Your task to perform on an android device: When is my next meeting? Image 0: 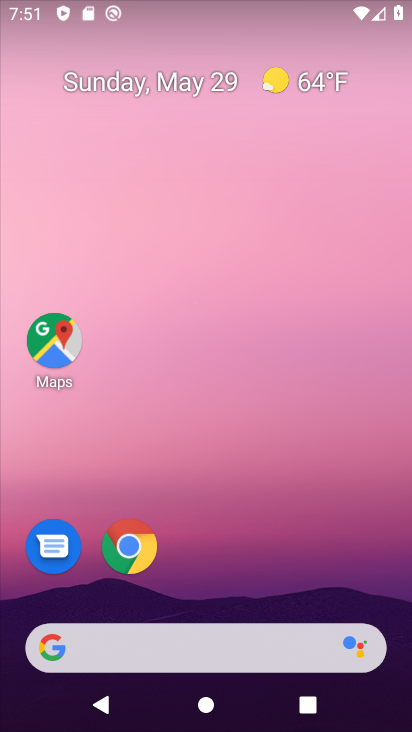
Step 0: drag from (337, 590) to (217, 107)
Your task to perform on an android device: When is my next meeting? Image 1: 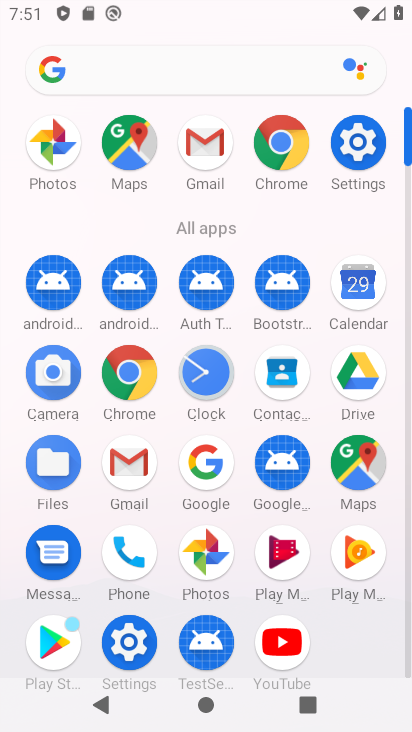
Step 1: click (370, 271)
Your task to perform on an android device: When is my next meeting? Image 2: 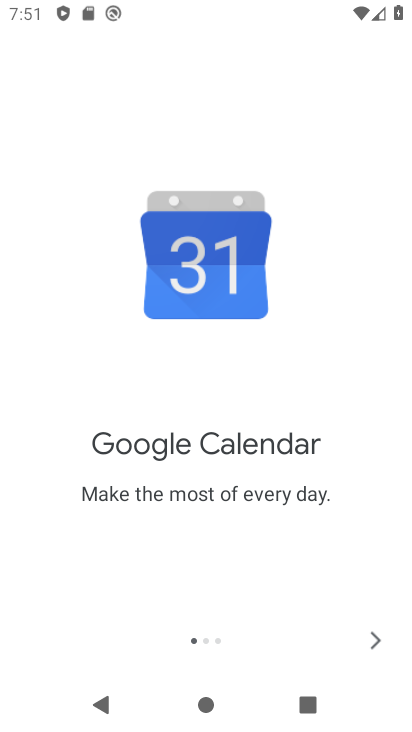
Step 2: click (373, 642)
Your task to perform on an android device: When is my next meeting? Image 3: 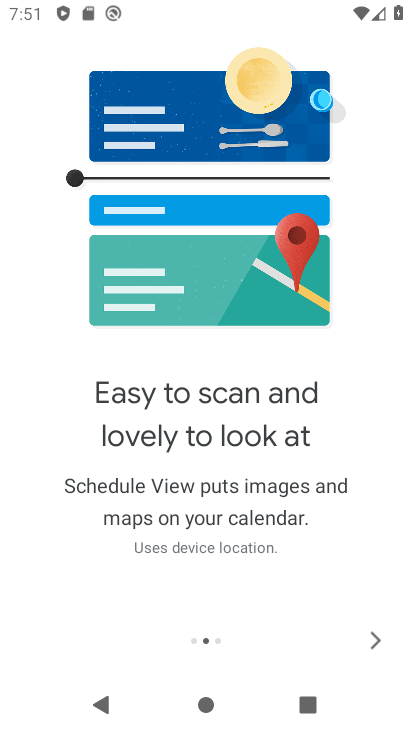
Step 3: click (373, 642)
Your task to perform on an android device: When is my next meeting? Image 4: 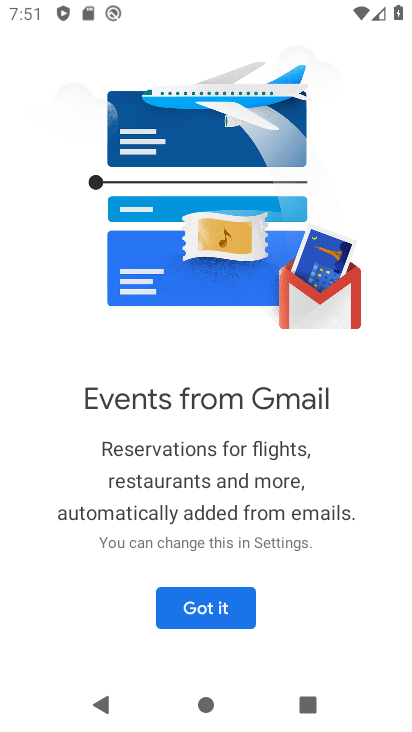
Step 4: click (373, 642)
Your task to perform on an android device: When is my next meeting? Image 5: 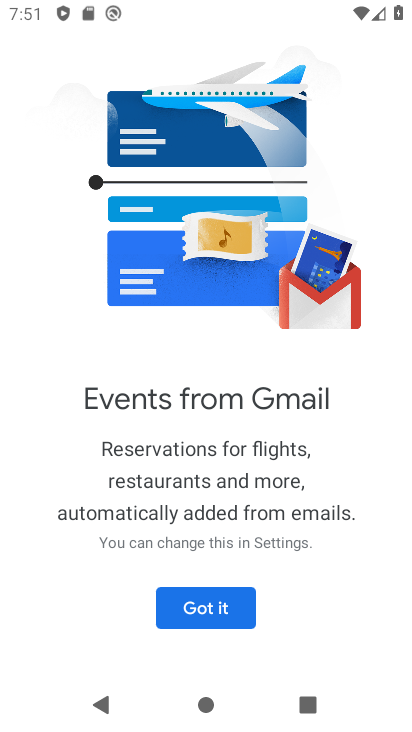
Step 5: click (232, 615)
Your task to perform on an android device: When is my next meeting? Image 6: 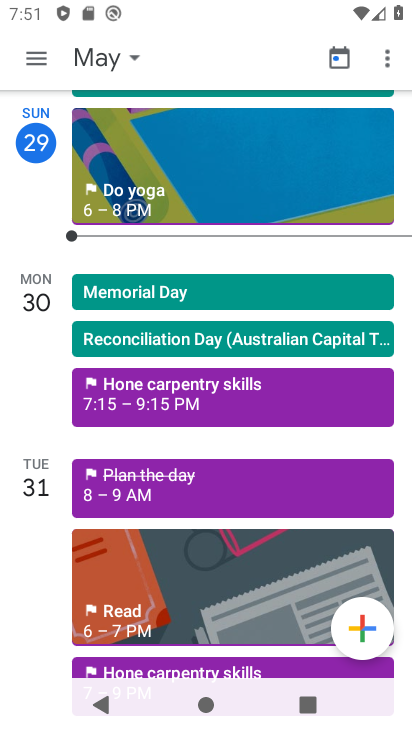
Step 6: task complete